Your task to perform on an android device: open app "Venmo" (install if not already installed), go to login, and select forgot password Image 0: 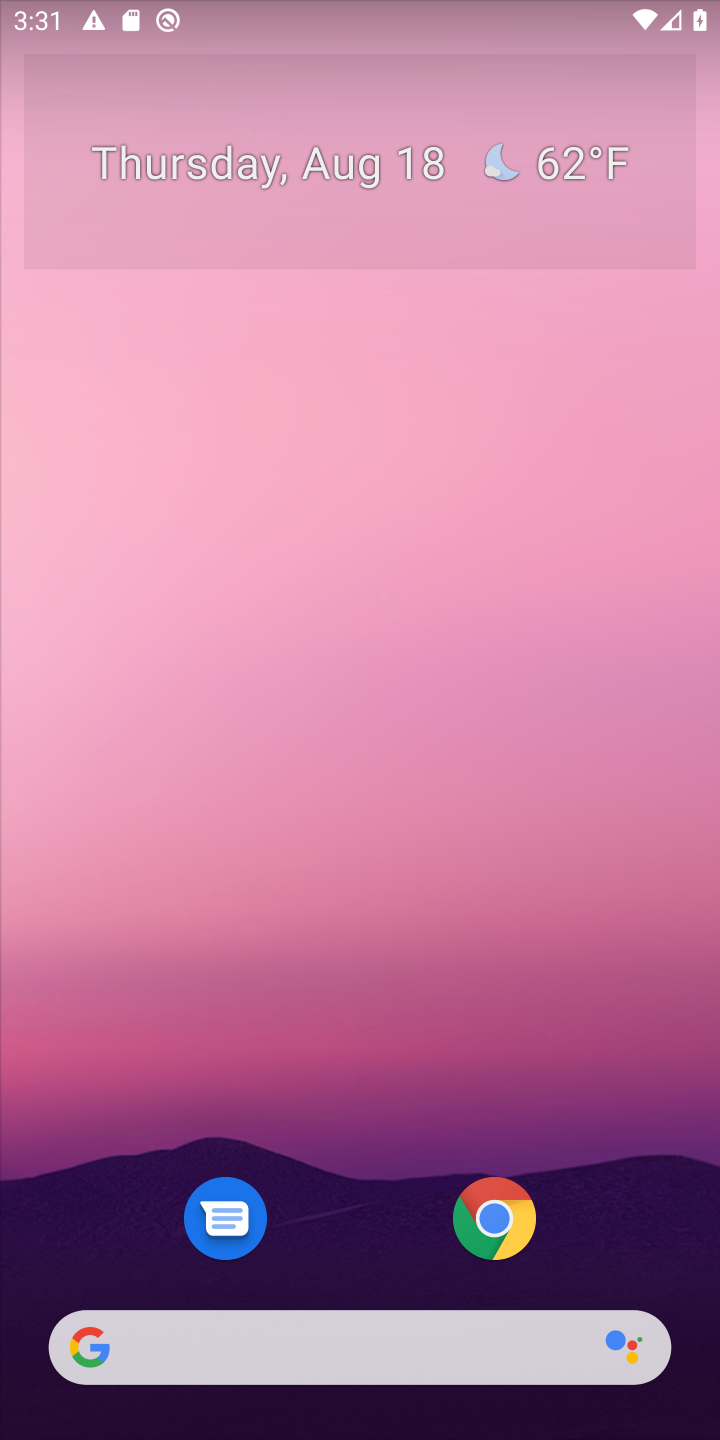
Step 0: drag from (373, 1139) to (394, 383)
Your task to perform on an android device: open app "Venmo" (install if not already installed), go to login, and select forgot password Image 1: 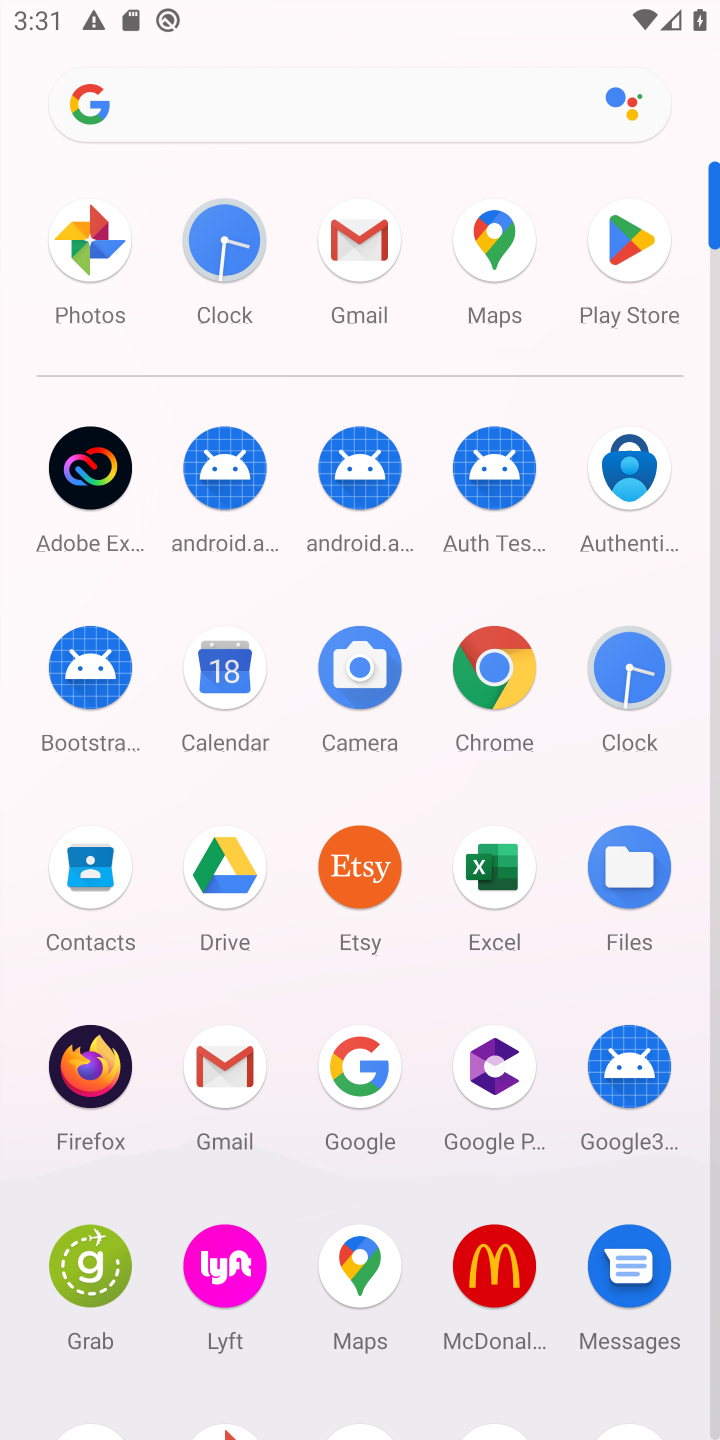
Step 1: click (602, 246)
Your task to perform on an android device: open app "Venmo" (install if not already installed), go to login, and select forgot password Image 2: 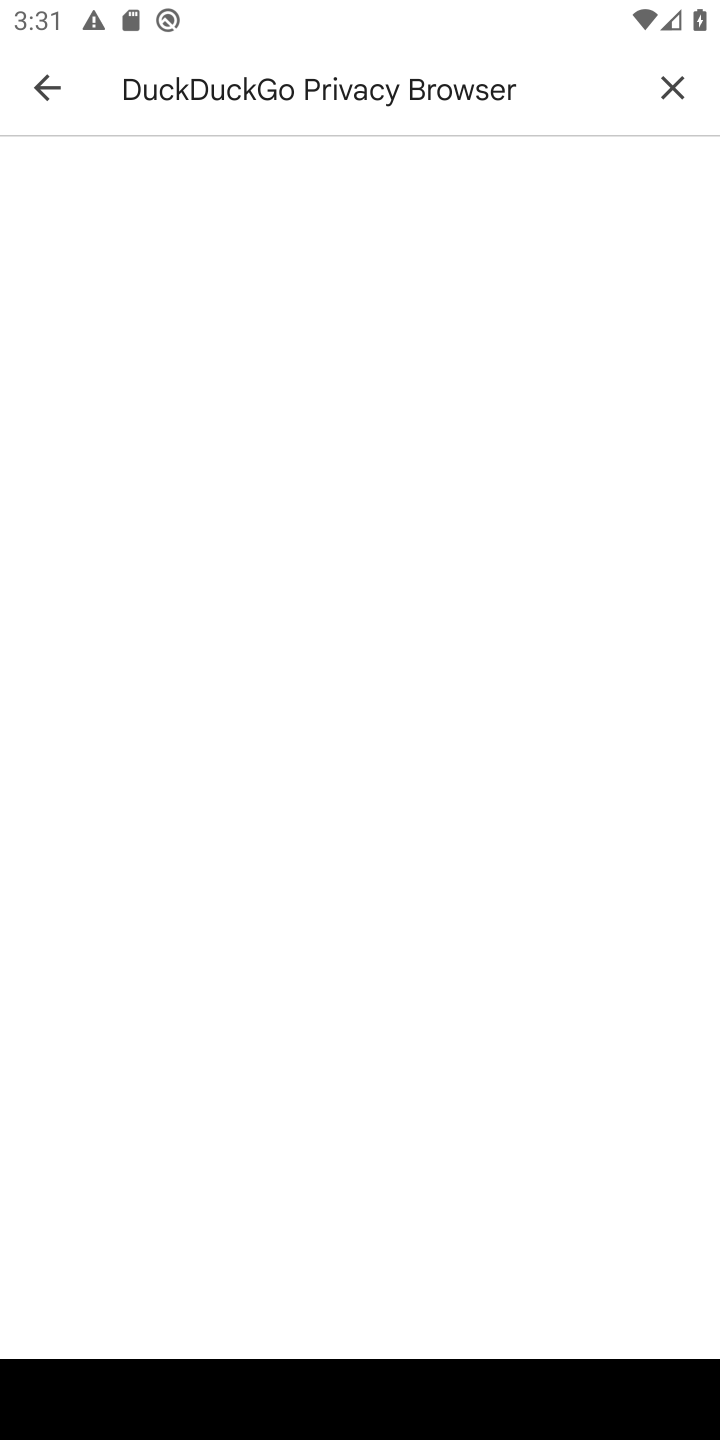
Step 2: click (654, 64)
Your task to perform on an android device: open app "Venmo" (install if not already installed), go to login, and select forgot password Image 3: 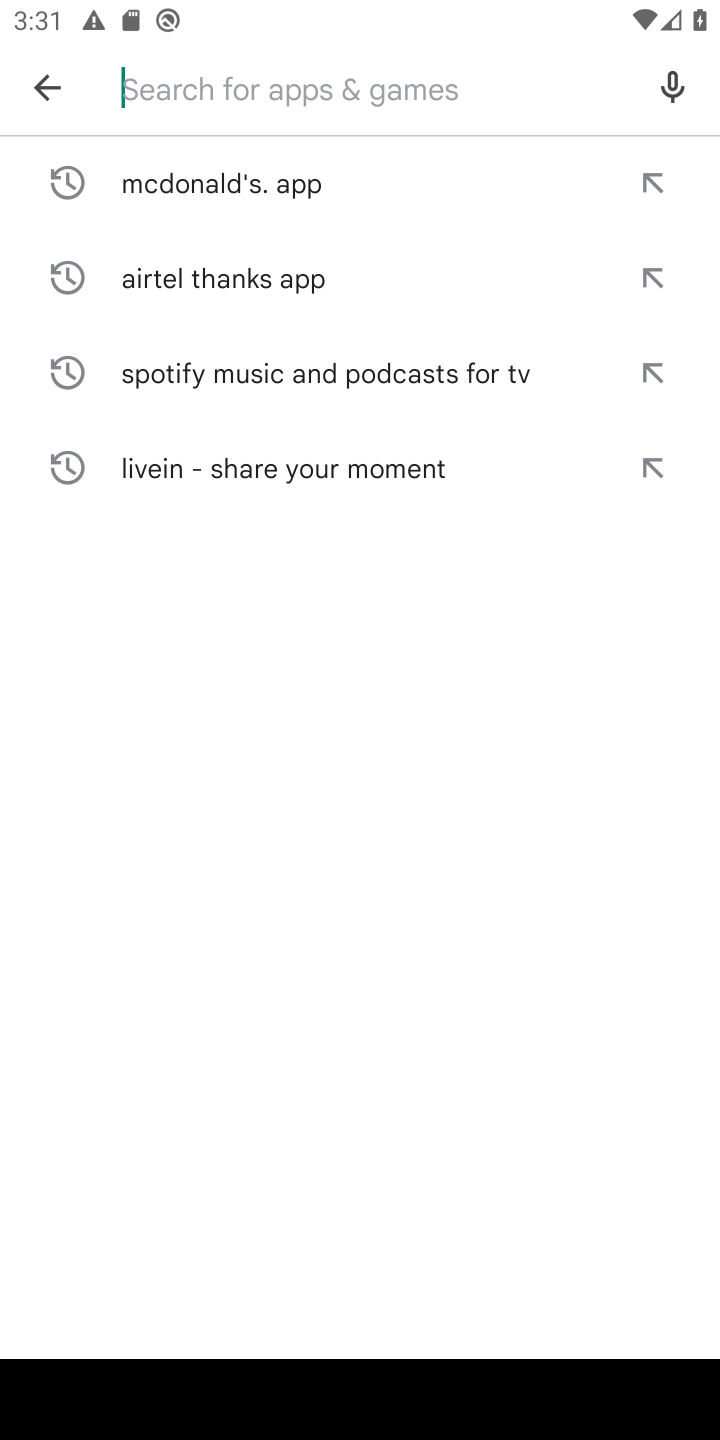
Step 3: type "Venmo"
Your task to perform on an android device: open app "Venmo" (install if not already installed), go to login, and select forgot password Image 4: 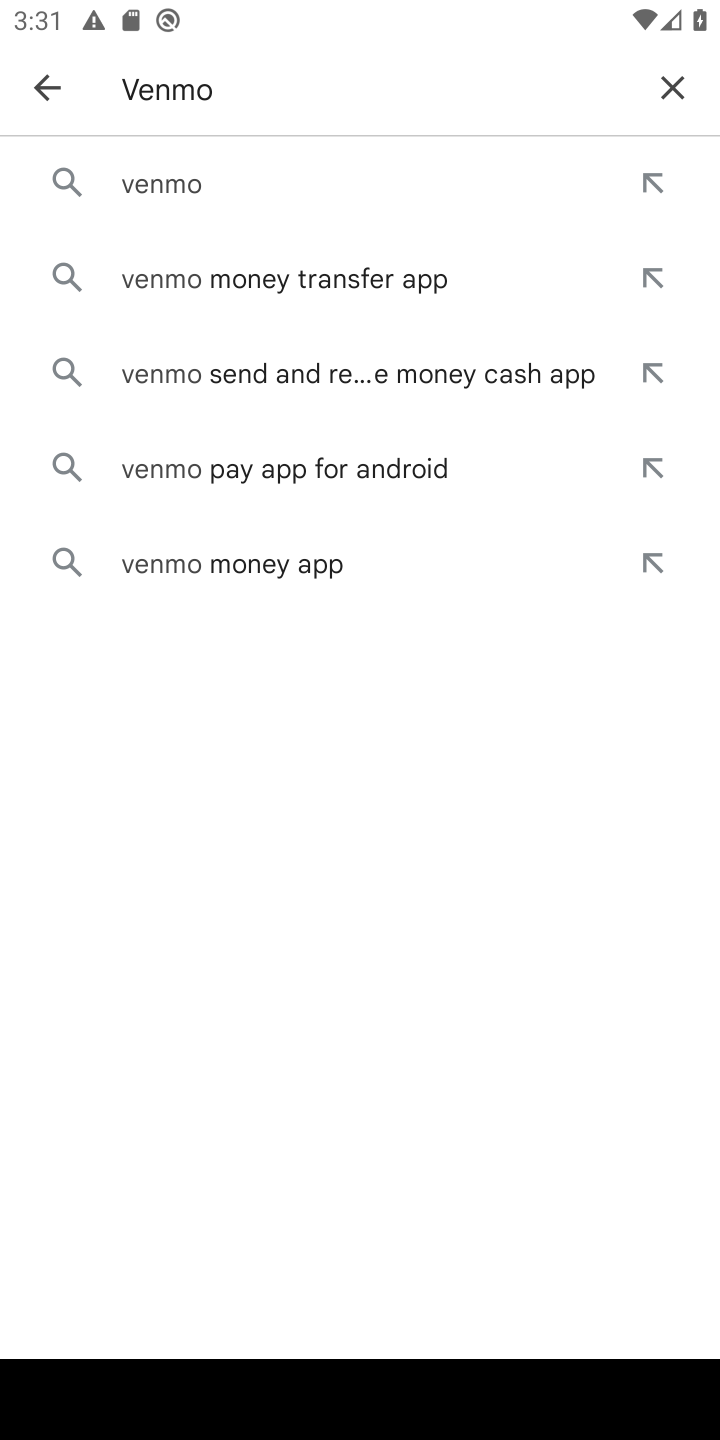
Step 4: click (183, 189)
Your task to perform on an android device: open app "Venmo" (install if not already installed), go to login, and select forgot password Image 5: 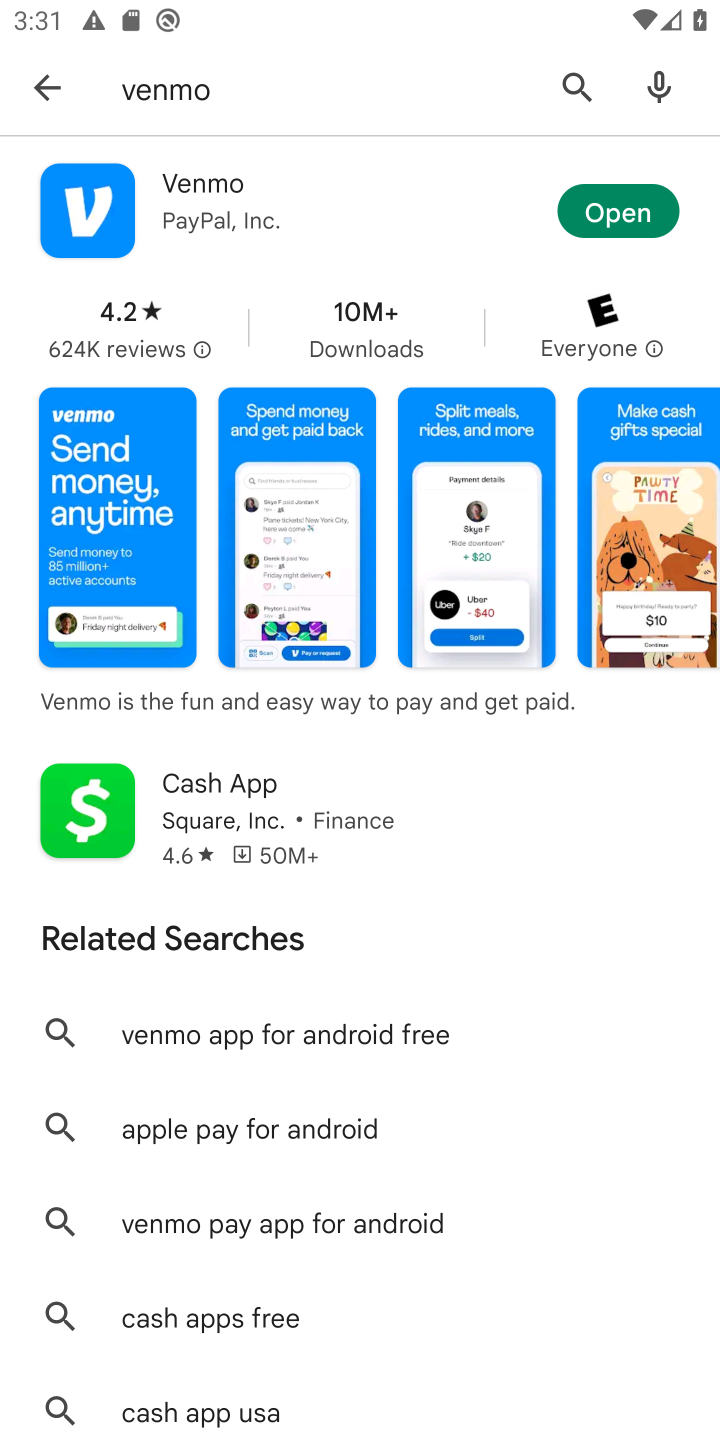
Step 5: click (610, 218)
Your task to perform on an android device: open app "Venmo" (install if not already installed), go to login, and select forgot password Image 6: 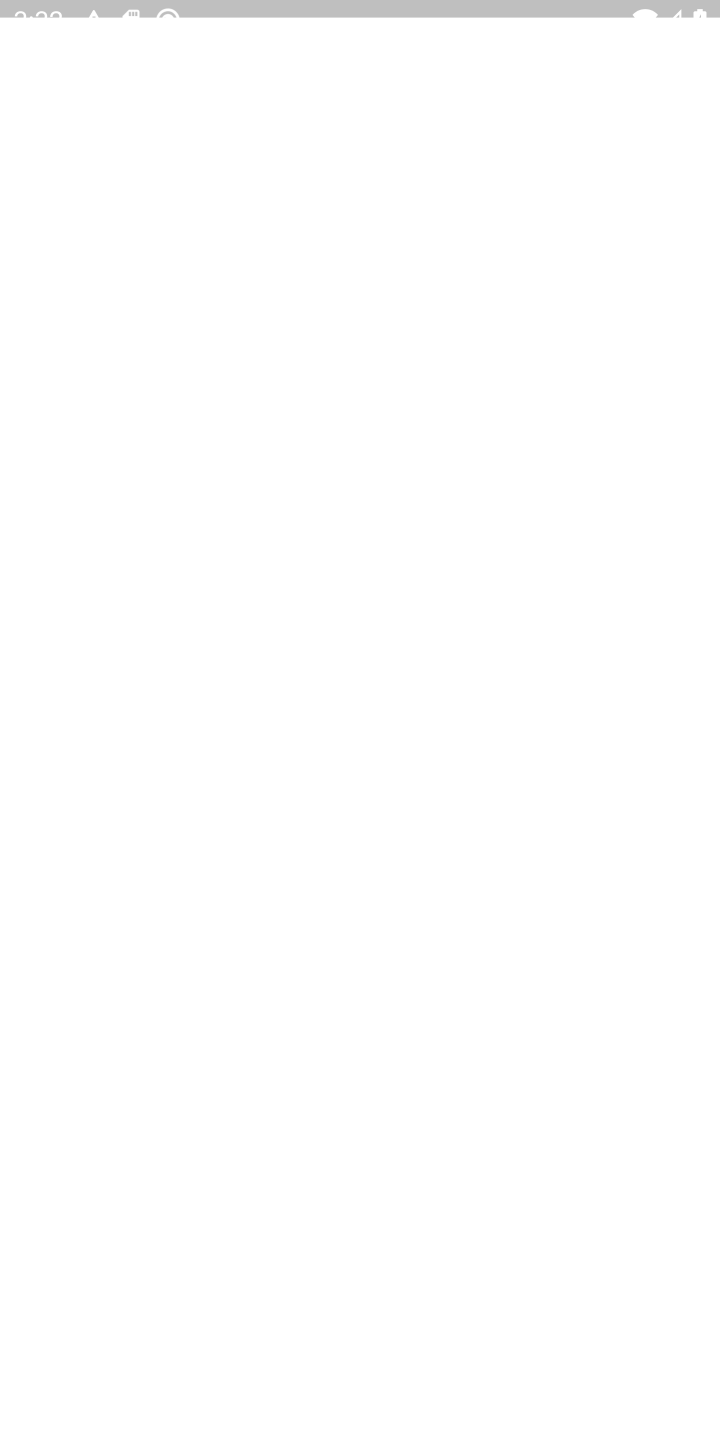
Step 6: task complete